Your task to perform on an android device: Turn on the flashlight Image 0: 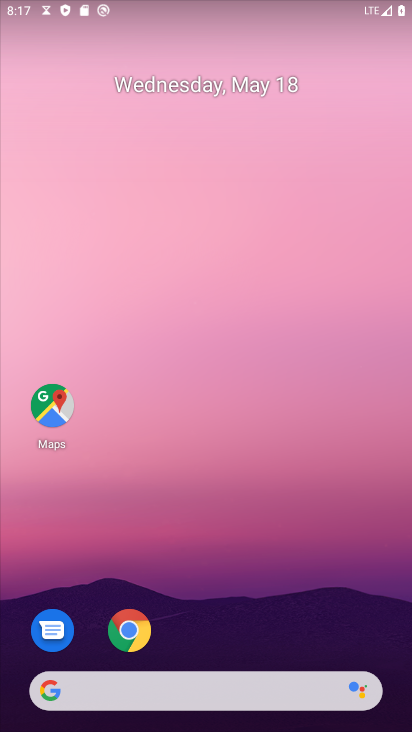
Step 0: drag from (272, 463) to (365, 90)
Your task to perform on an android device: Turn on the flashlight Image 1: 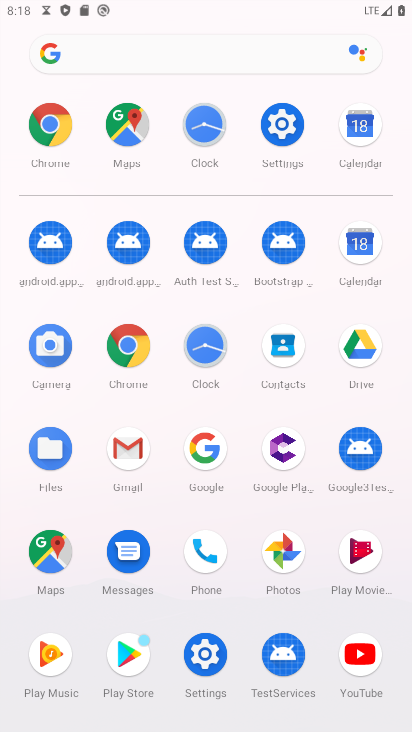
Step 1: click (294, 124)
Your task to perform on an android device: Turn on the flashlight Image 2: 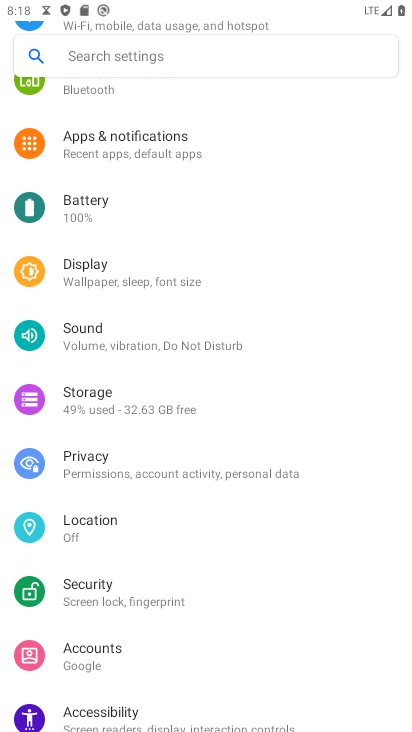
Step 2: task complete